Your task to perform on an android device: turn off notifications in google photos Image 0: 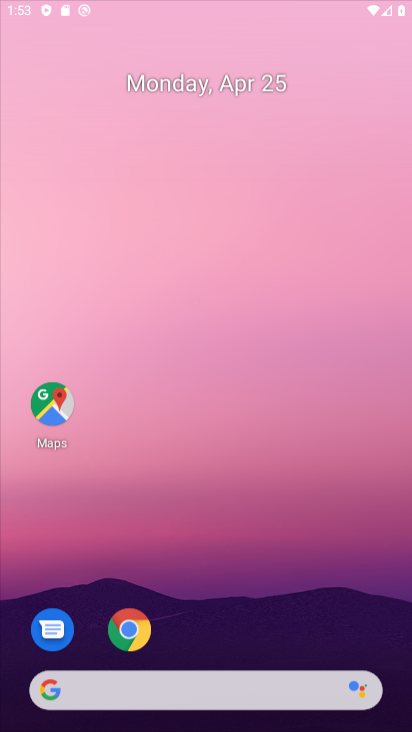
Step 0: drag from (238, 531) to (213, 78)
Your task to perform on an android device: turn off notifications in google photos Image 1: 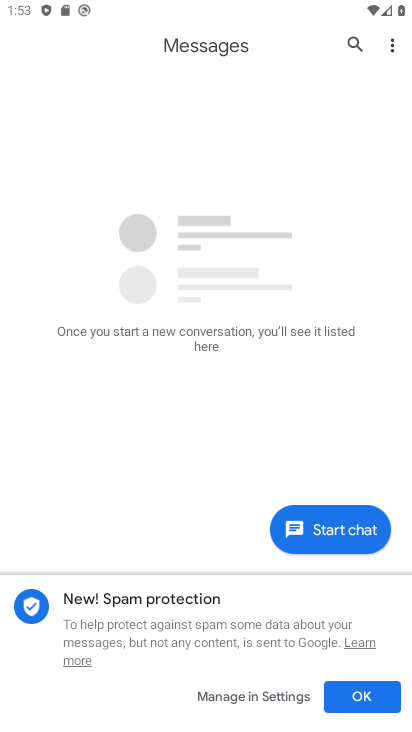
Step 1: press home button
Your task to perform on an android device: turn off notifications in google photos Image 2: 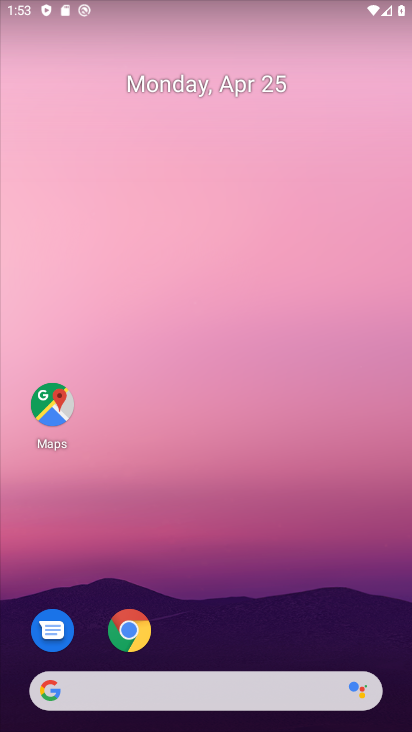
Step 2: drag from (205, 645) to (194, 99)
Your task to perform on an android device: turn off notifications in google photos Image 3: 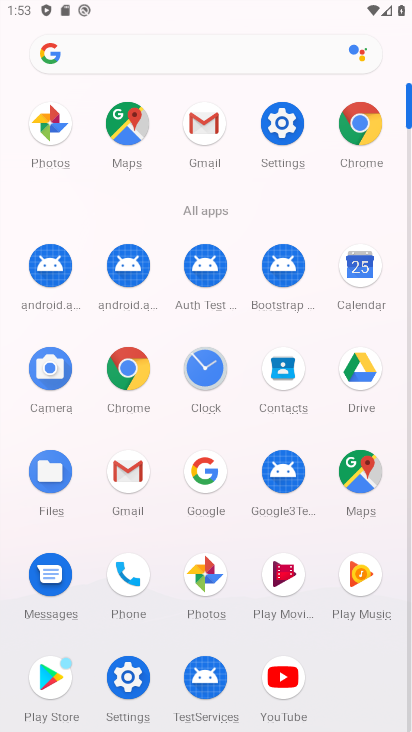
Step 3: click (52, 111)
Your task to perform on an android device: turn off notifications in google photos Image 4: 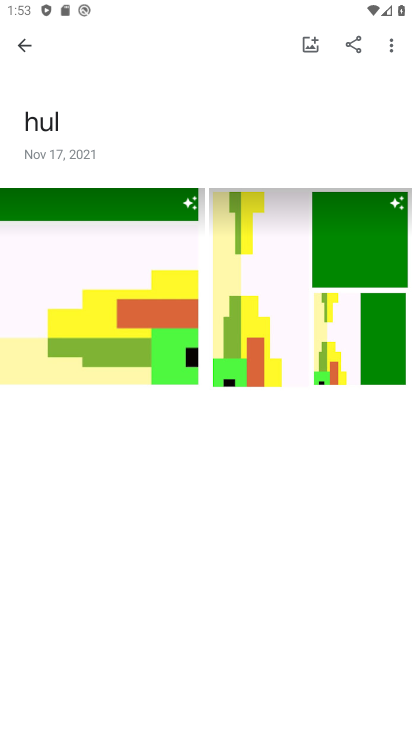
Step 4: click (32, 51)
Your task to perform on an android device: turn off notifications in google photos Image 5: 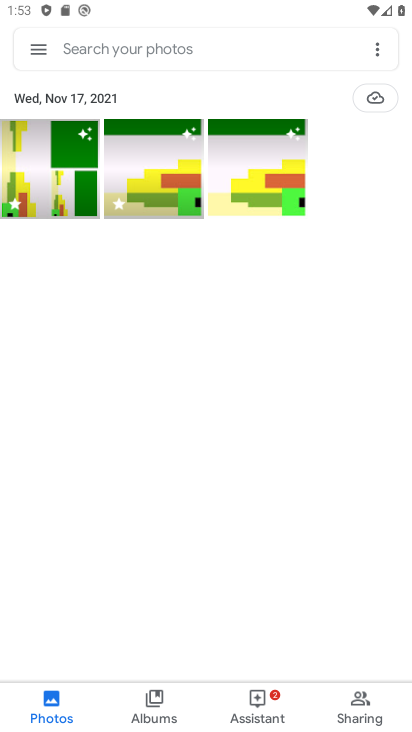
Step 5: click (45, 46)
Your task to perform on an android device: turn off notifications in google photos Image 6: 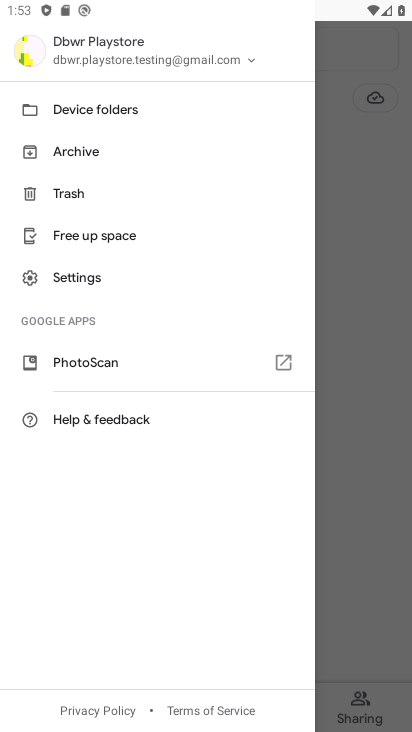
Step 6: click (96, 309)
Your task to perform on an android device: turn off notifications in google photos Image 7: 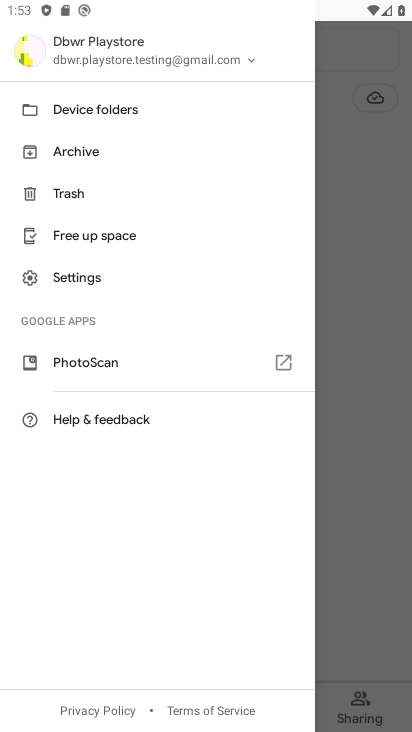
Step 7: click (72, 290)
Your task to perform on an android device: turn off notifications in google photos Image 8: 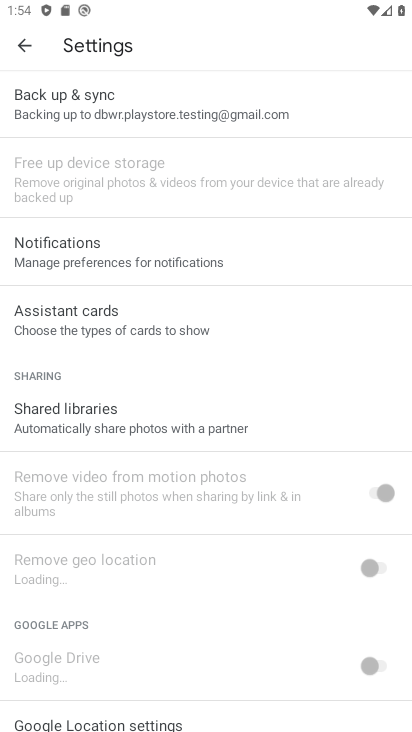
Step 8: click (99, 258)
Your task to perform on an android device: turn off notifications in google photos Image 9: 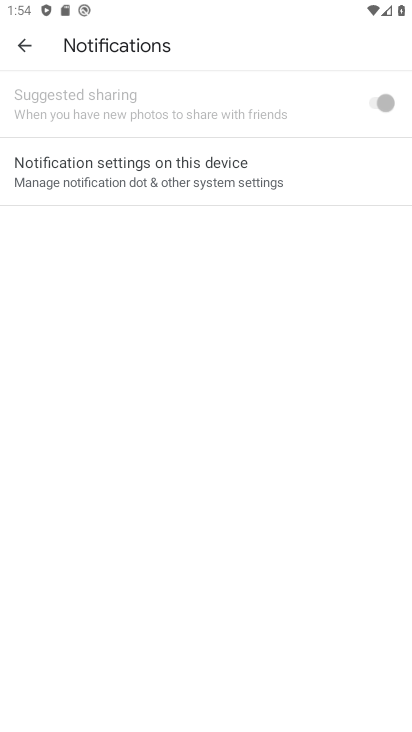
Step 9: click (162, 164)
Your task to perform on an android device: turn off notifications in google photos Image 10: 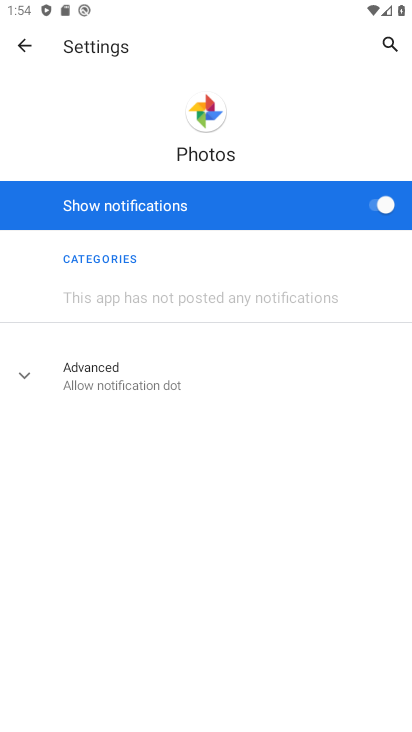
Step 10: click (380, 220)
Your task to perform on an android device: turn off notifications in google photos Image 11: 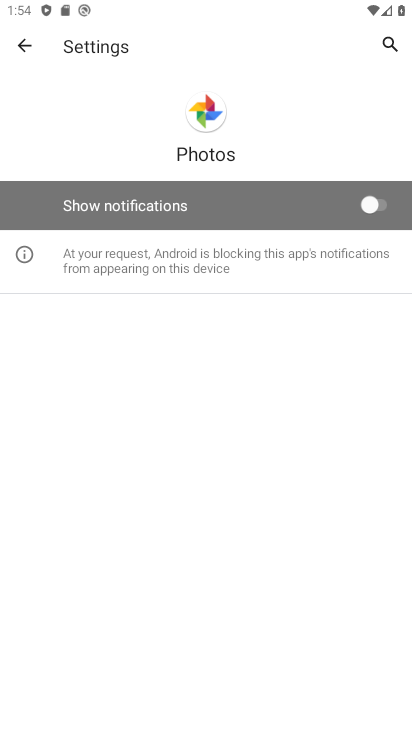
Step 11: task complete